Your task to perform on an android device: Show me productivity apps on the Play Store Image 0: 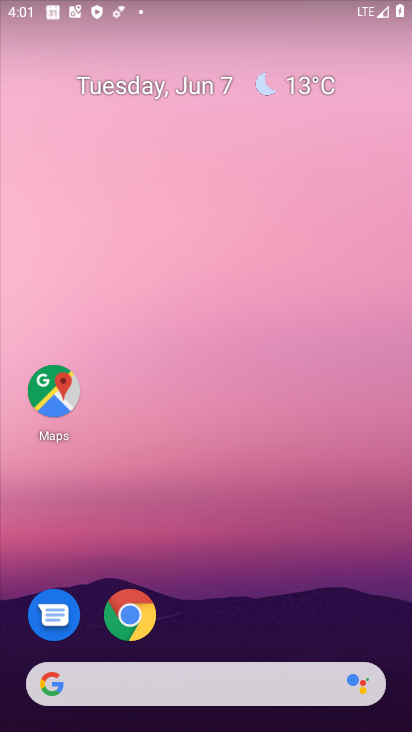
Step 0: drag from (179, 723) to (196, 92)
Your task to perform on an android device: Show me productivity apps on the Play Store Image 1: 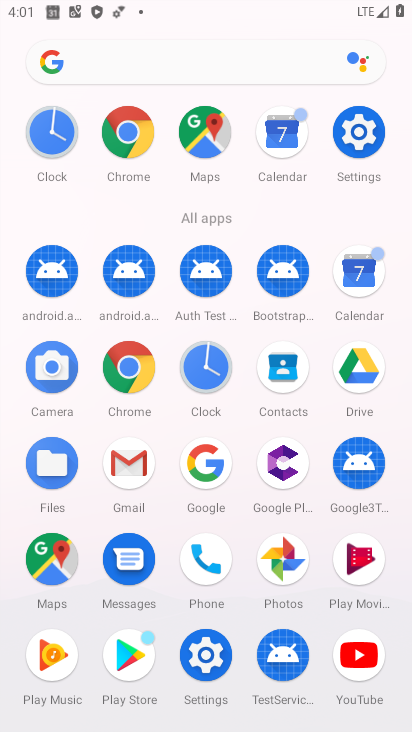
Step 1: click (138, 657)
Your task to perform on an android device: Show me productivity apps on the Play Store Image 2: 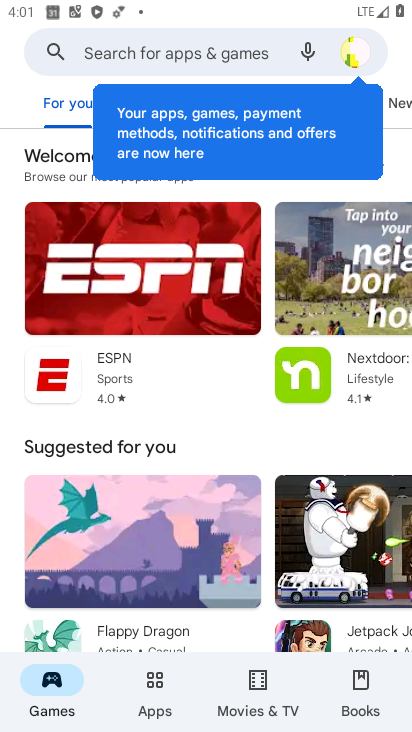
Step 2: click (153, 694)
Your task to perform on an android device: Show me productivity apps on the Play Store Image 3: 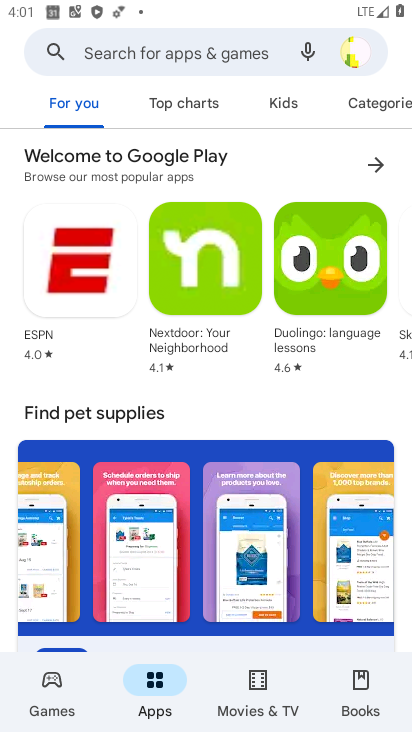
Step 3: click (378, 100)
Your task to perform on an android device: Show me productivity apps on the Play Store Image 4: 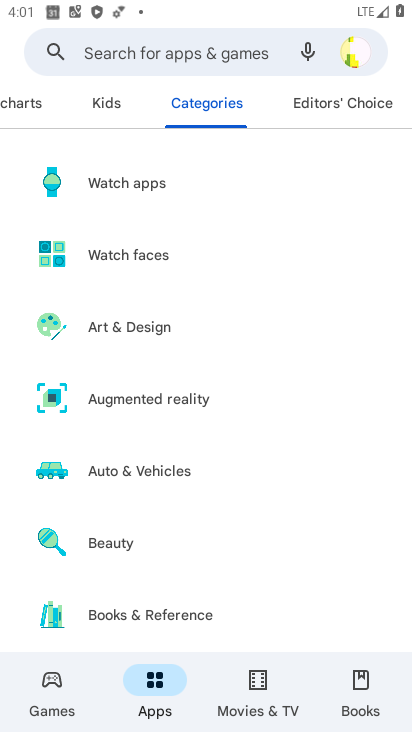
Step 4: drag from (186, 591) to (185, 280)
Your task to perform on an android device: Show me productivity apps on the Play Store Image 5: 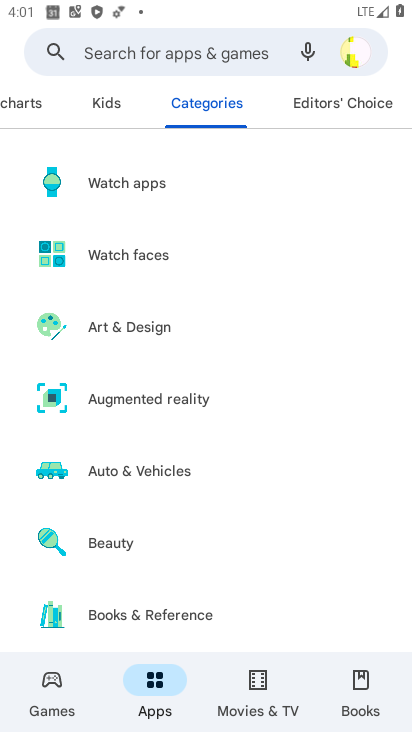
Step 5: drag from (200, 621) to (222, 357)
Your task to perform on an android device: Show me productivity apps on the Play Store Image 6: 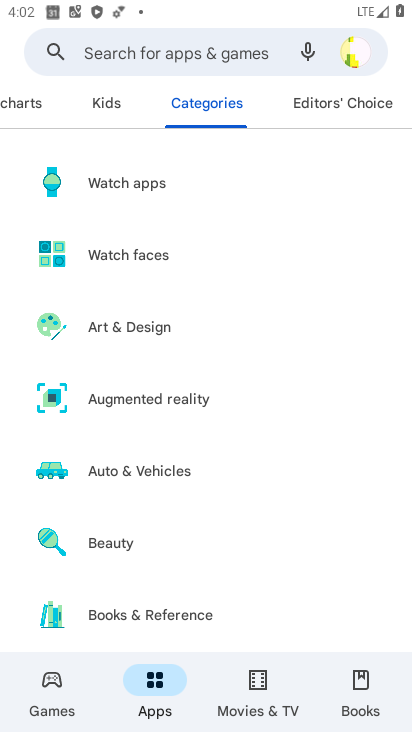
Step 6: drag from (107, 587) to (121, 248)
Your task to perform on an android device: Show me productivity apps on the Play Store Image 7: 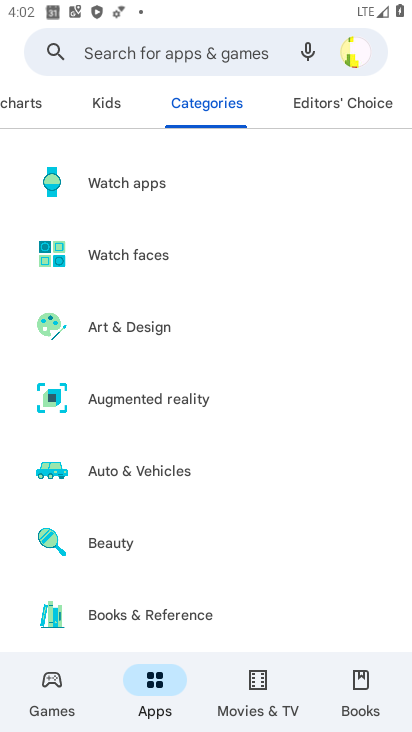
Step 7: drag from (120, 588) to (127, 212)
Your task to perform on an android device: Show me productivity apps on the Play Store Image 8: 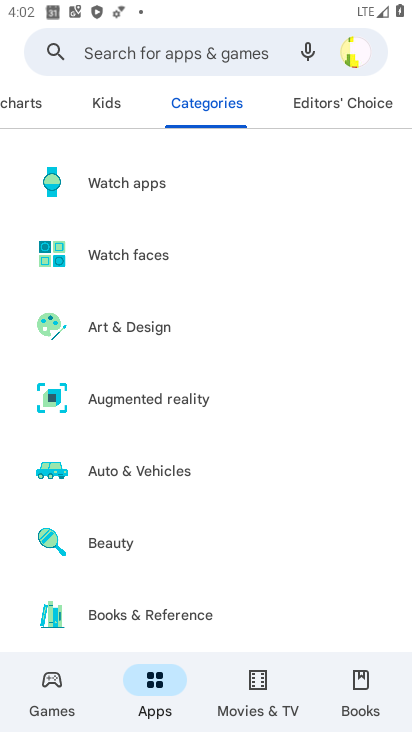
Step 8: drag from (151, 244) to (161, 545)
Your task to perform on an android device: Show me productivity apps on the Play Store Image 9: 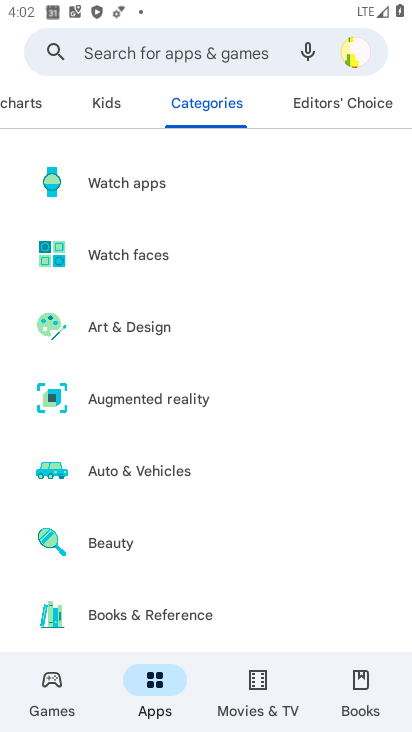
Step 9: drag from (174, 596) to (174, 262)
Your task to perform on an android device: Show me productivity apps on the Play Store Image 10: 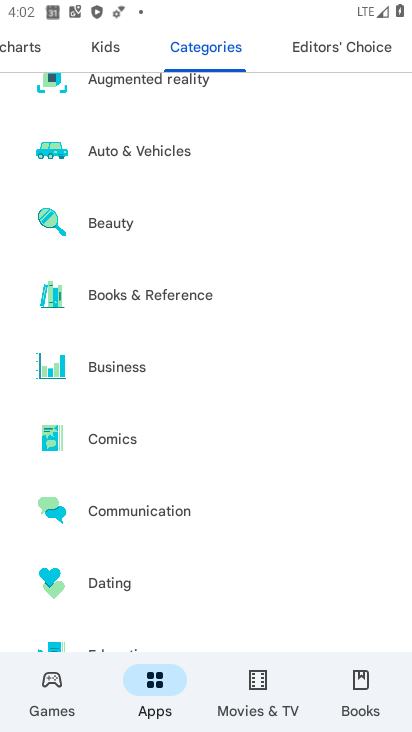
Step 10: drag from (158, 487) to (155, 294)
Your task to perform on an android device: Show me productivity apps on the Play Store Image 11: 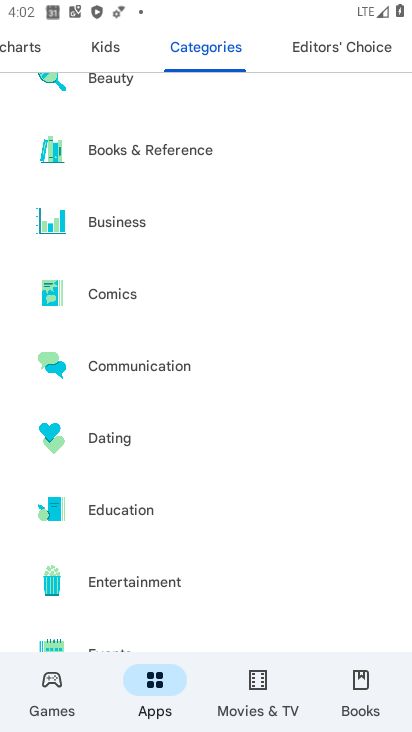
Step 11: drag from (176, 437) to (178, 263)
Your task to perform on an android device: Show me productivity apps on the Play Store Image 12: 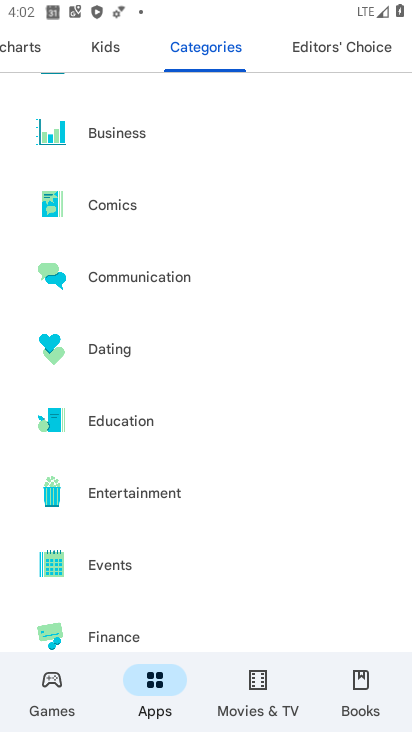
Step 12: drag from (146, 625) to (151, 268)
Your task to perform on an android device: Show me productivity apps on the Play Store Image 13: 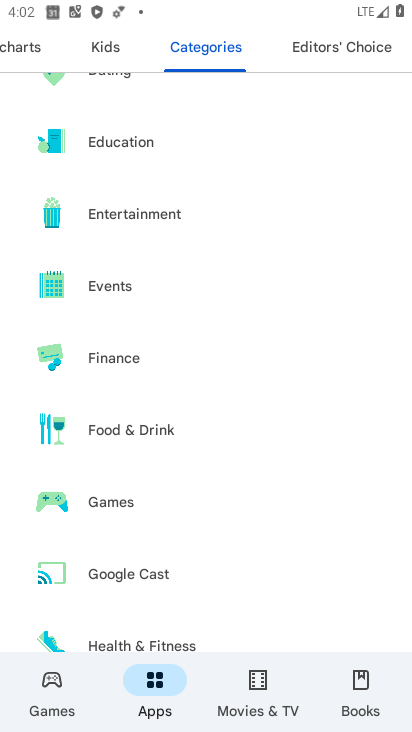
Step 13: drag from (142, 600) to (153, 254)
Your task to perform on an android device: Show me productivity apps on the Play Store Image 14: 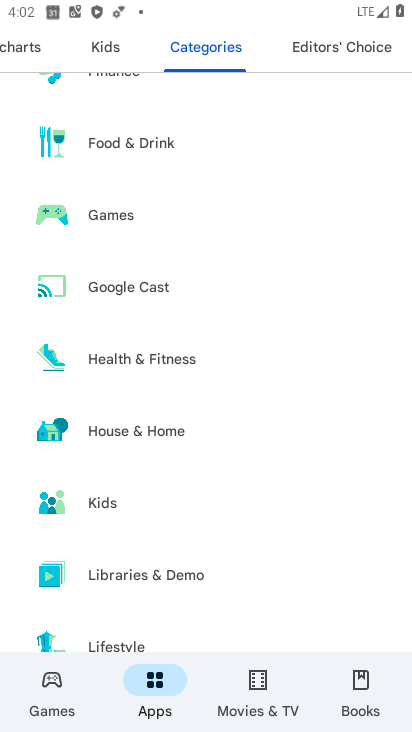
Step 14: drag from (159, 551) to (181, 227)
Your task to perform on an android device: Show me productivity apps on the Play Store Image 15: 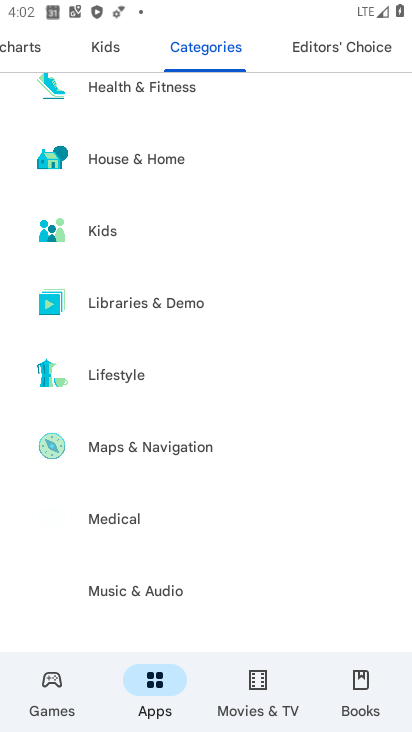
Step 15: drag from (163, 466) to (163, 216)
Your task to perform on an android device: Show me productivity apps on the Play Store Image 16: 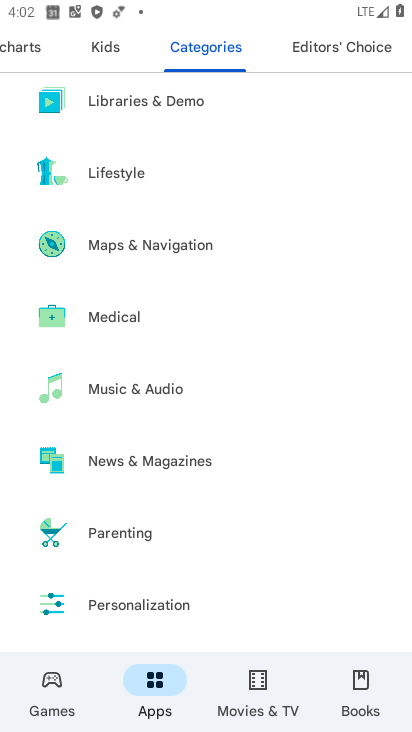
Step 16: drag from (158, 614) to (157, 245)
Your task to perform on an android device: Show me productivity apps on the Play Store Image 17: 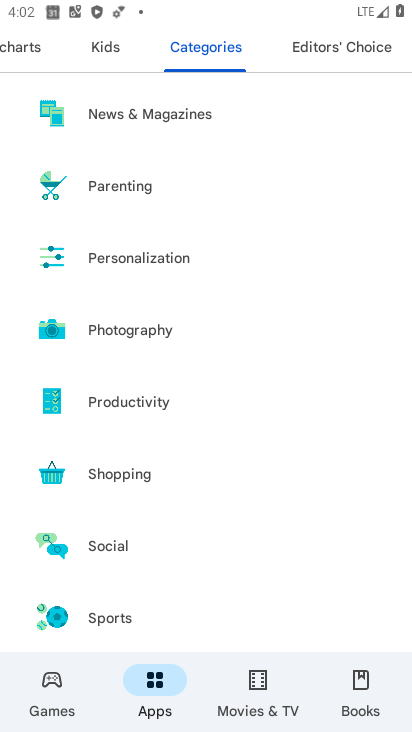
Step 17: click (135, 397)
Your task to perform on an android device: Show me productivity apps on the Play Store Image 18: 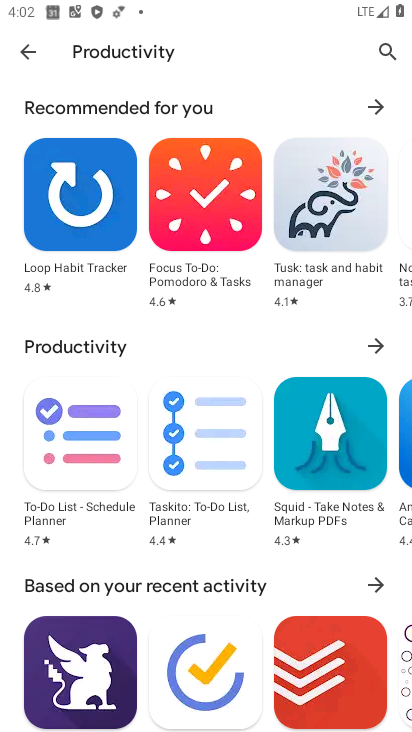
Step 18: task complete